Your task to perform on an android device: Go to location settings Image 0: 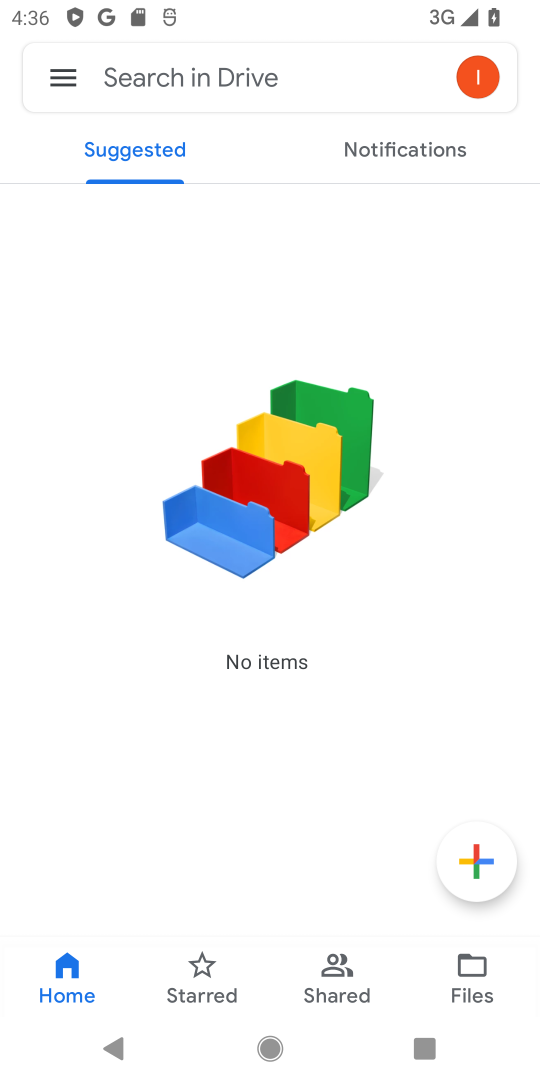
Step 0: press home button
Your task to perform on an android device: Go to location settings Image 1: 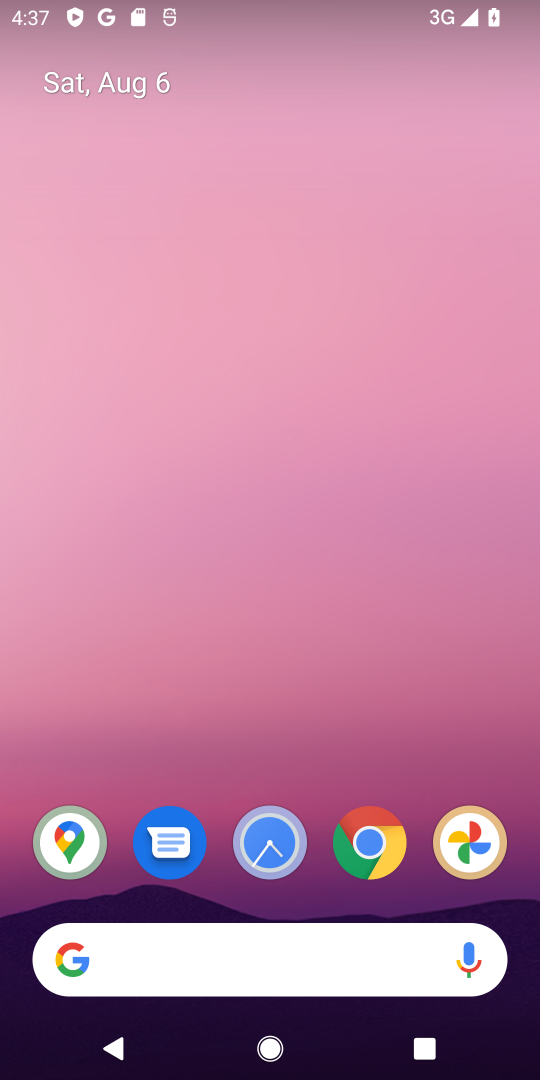
Step 1: drag from (497, 1044) to (454, 140)
Your task to perform on an android device: Go to location settings Image 2: 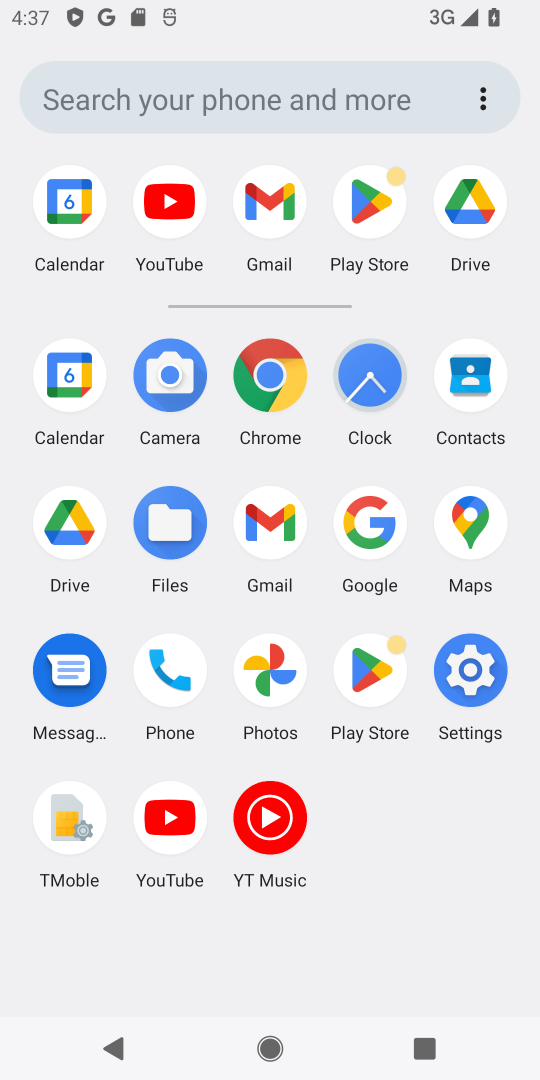
Step 2: click (479, 660)
Your task to perform on an android device: Go to location settings Image 3: 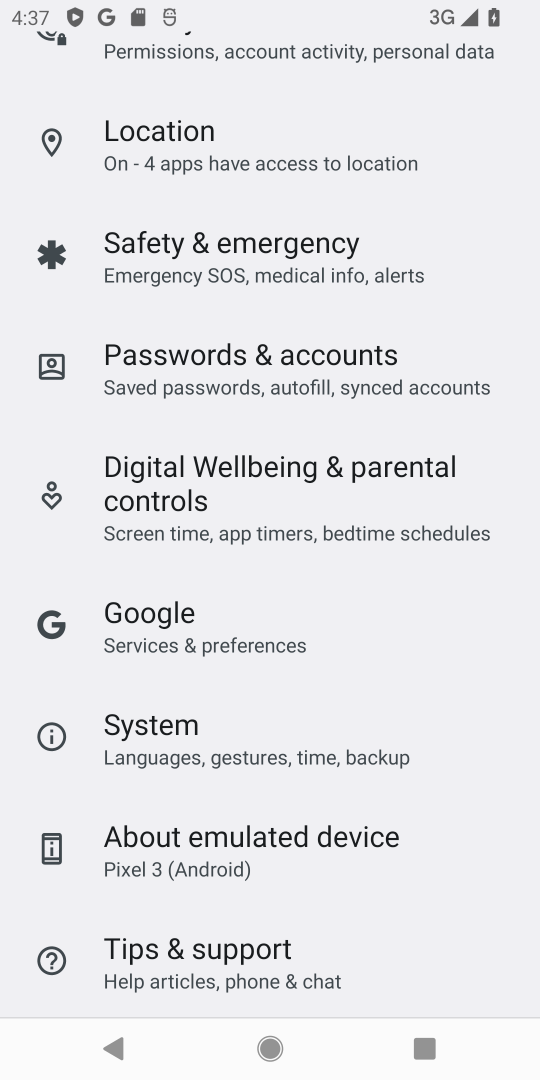
Step 3: drag from (450, 957) to (466, 181)
Your task to perform on an android device: Go to location settings Image 4: 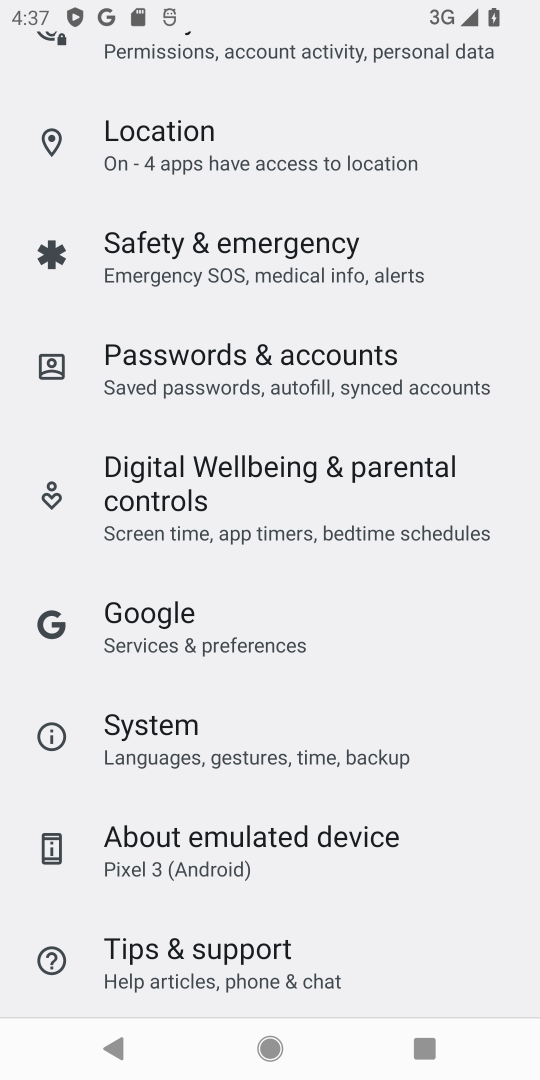
Step 4: click (130, 137)
Your task to perform on an android device: Go to location settings Image 5: 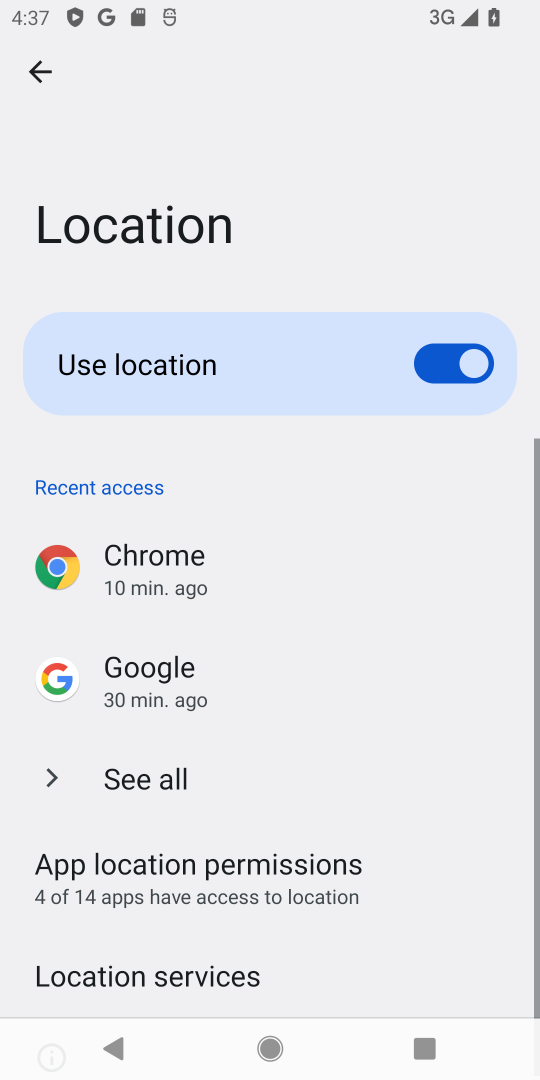
Step 5: task complete